Your task to perform on an android device: Go to sound settings Image 0: 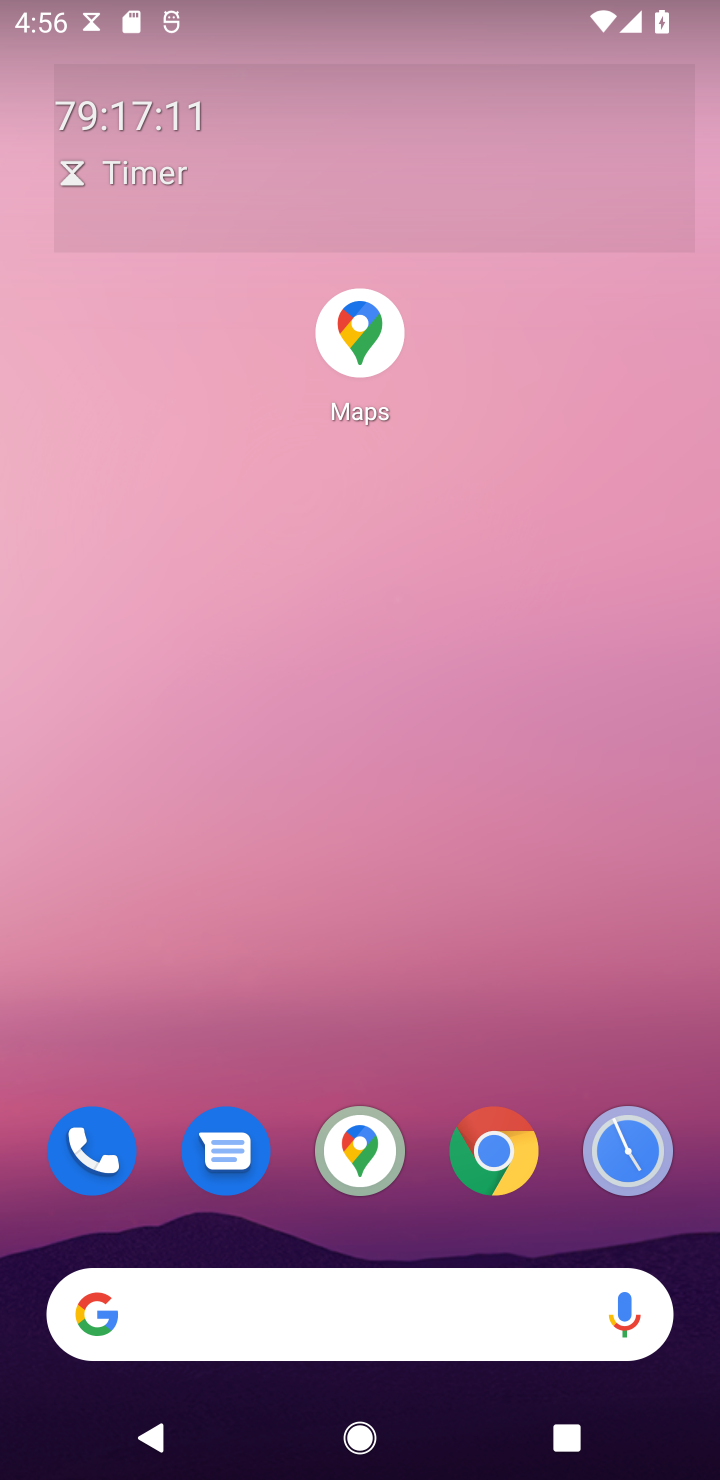
Step 0: drag from (583, 1232) to (566, 243)
Your task to perform on an android device: Go to sound settings Image 1: 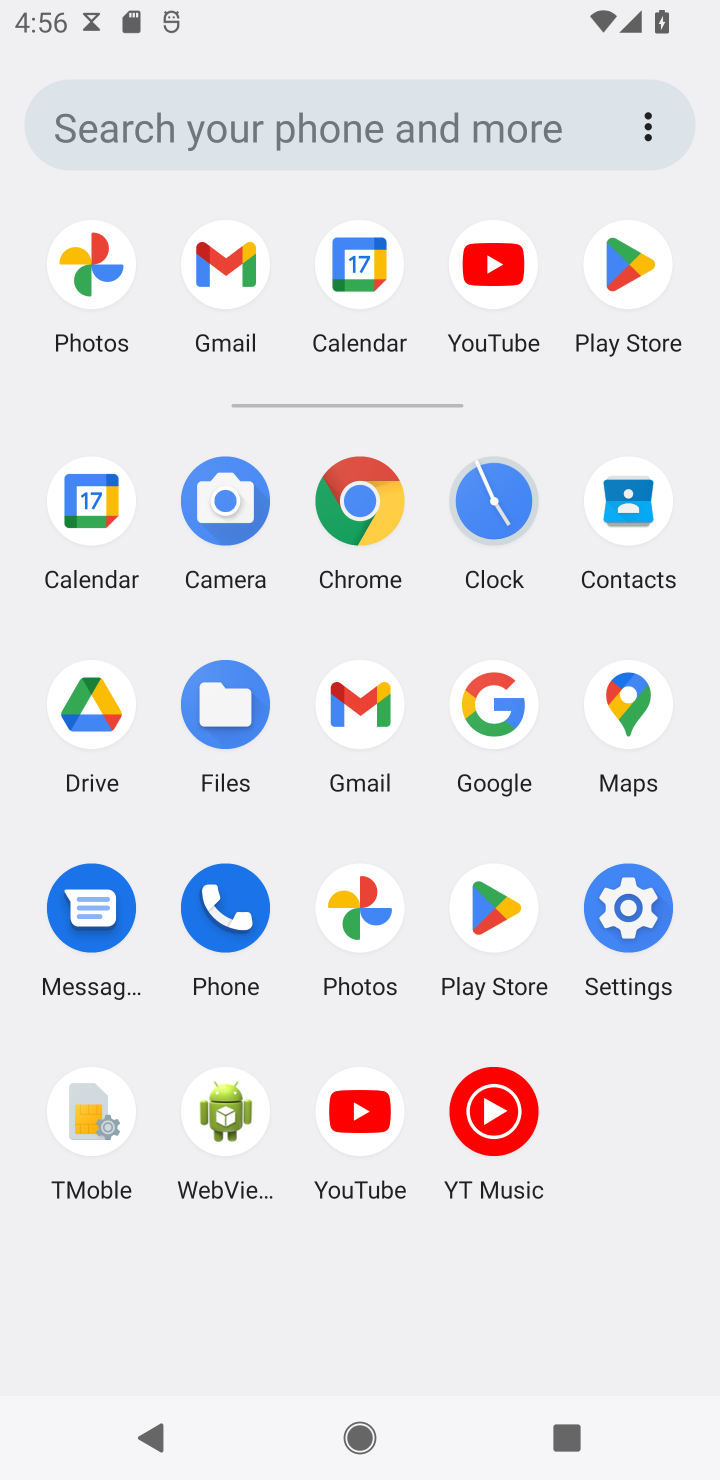
Step 1: click (644, 919)
Your task to perform on an android device: Go to sound settings Image 2: 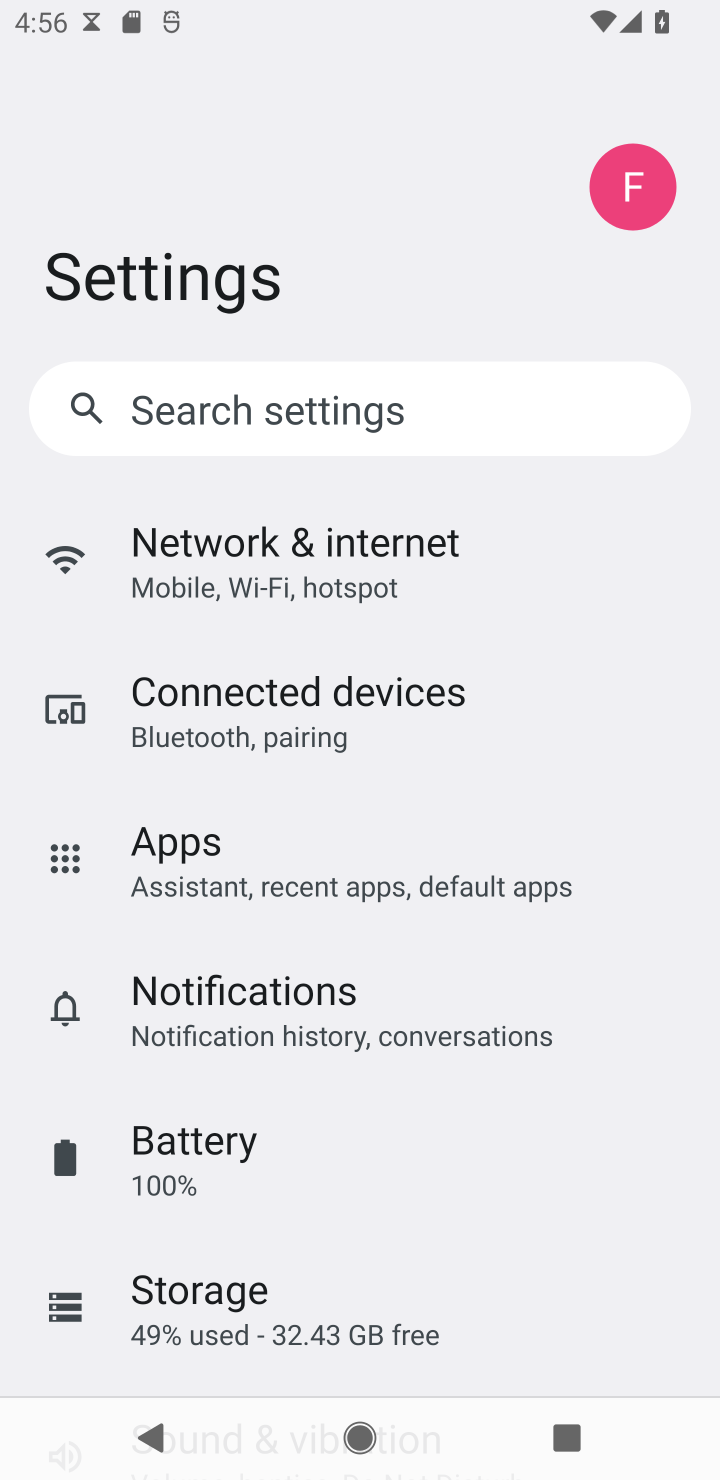
Step 2: drag from (199, 1245) to (289, 412)
Your task to perform on an android device: Go to sound settings Image 3: 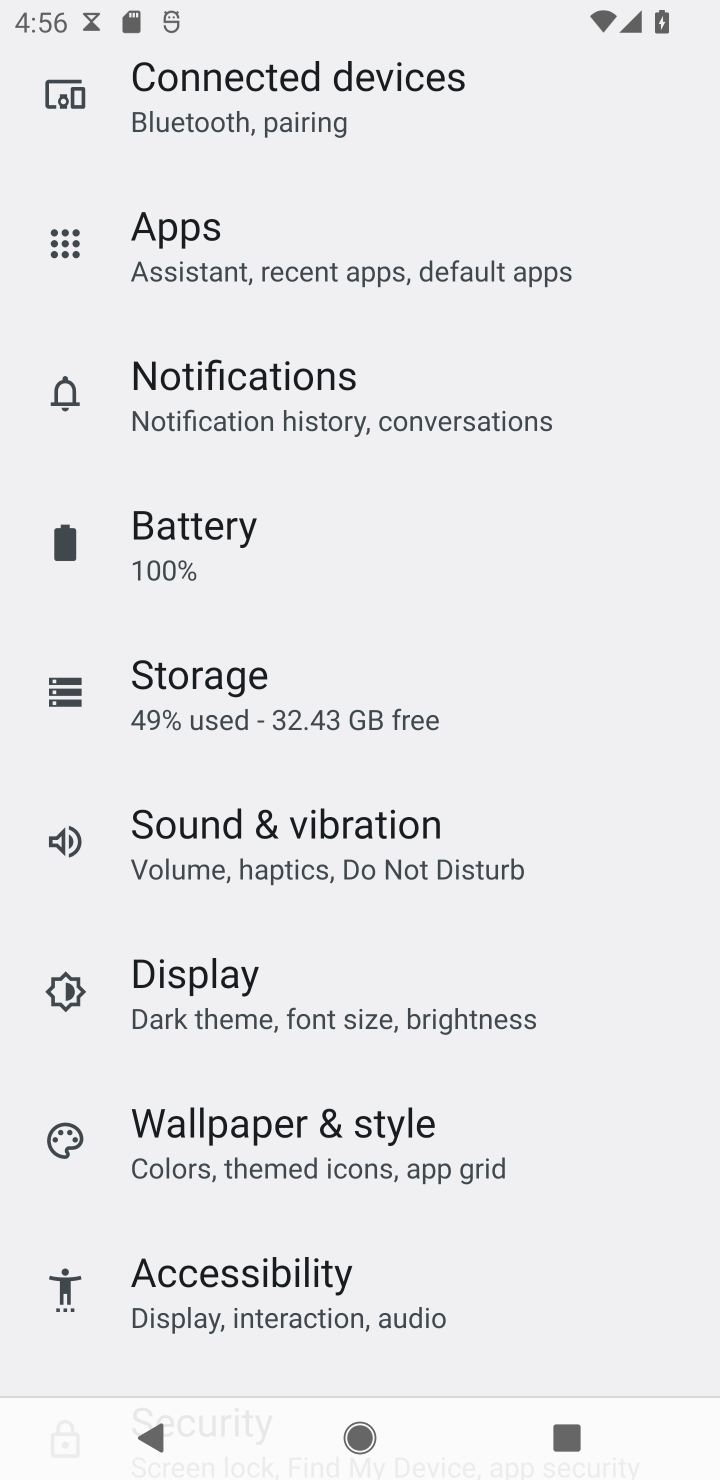
Step 3: click (219, 825)
Your task to perform on an android device: Go to sound settings Image 4: 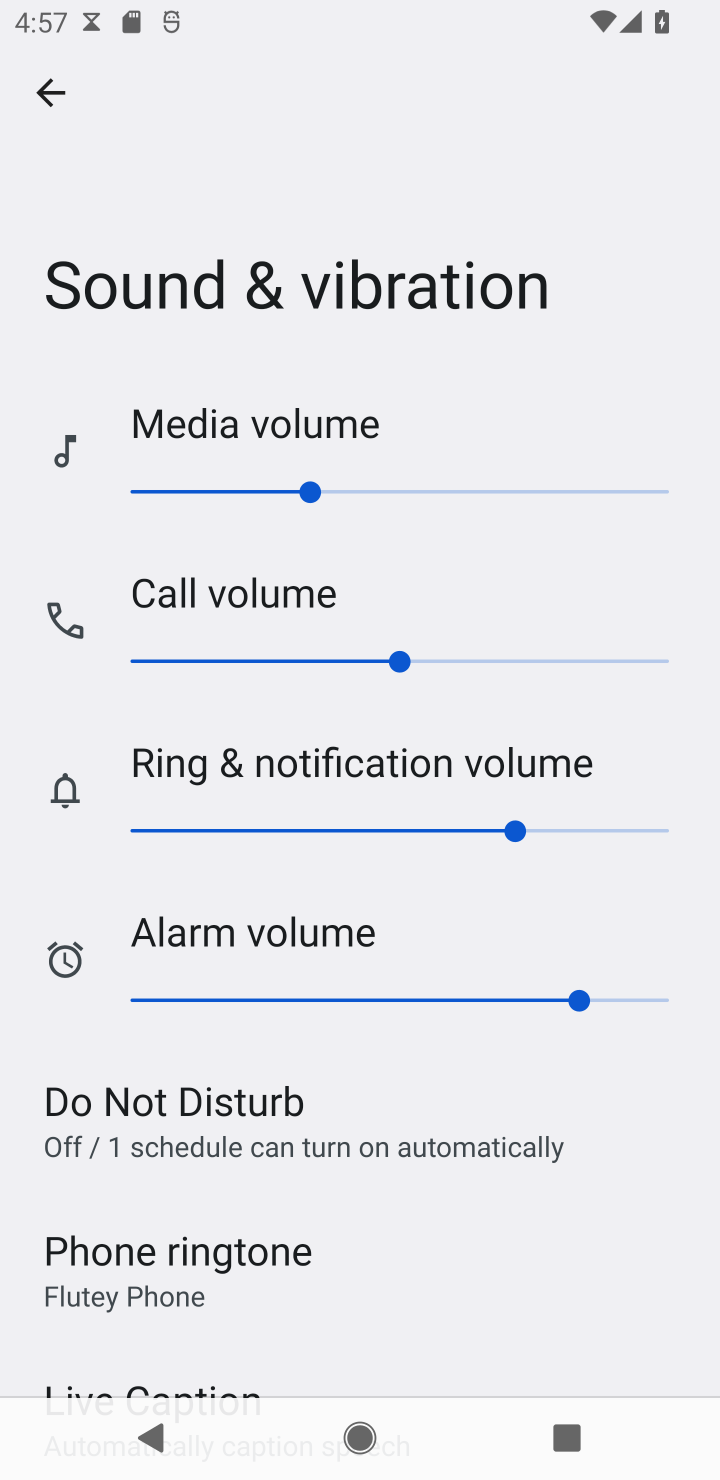
Step 4: task complete